Your task to perform on an android device: check android version Image 0: 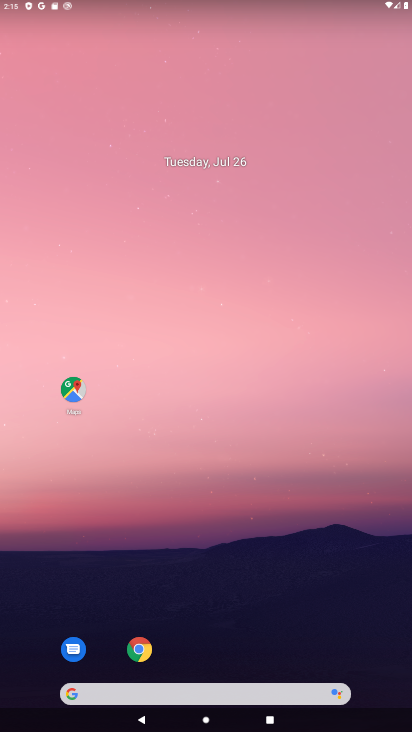
Step 0: drag from (274, 684) to (144, 88)
Your task to perform on an android device: check android version Image 1: 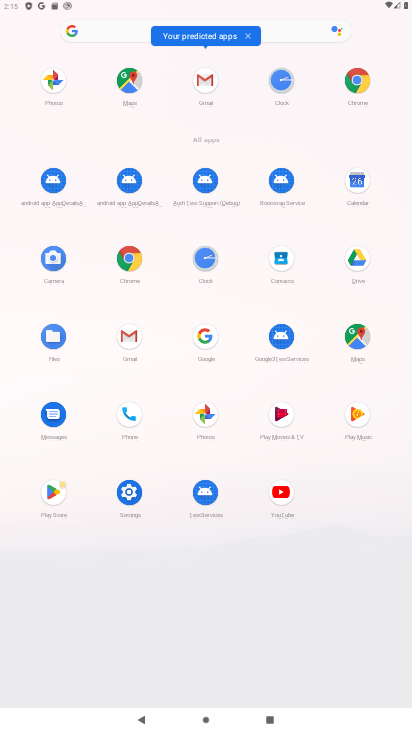
Step 1: click (130, 492)
Your task to perform on an android device: check android version Image 2: 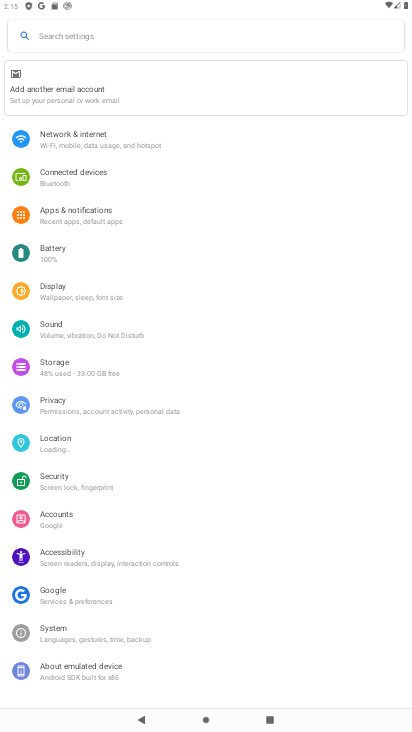
Step 2: click (112, 669)
Your task to perform on an android device: check android version Image 3: 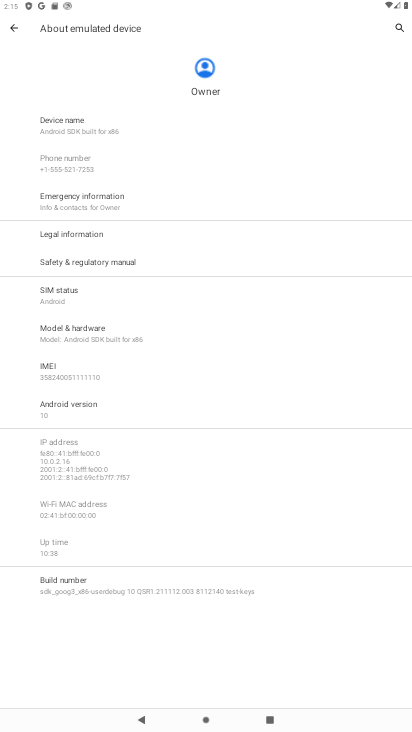
Step 3: click (95, 396)
Your task to perform on an android device: check android version Image 4: 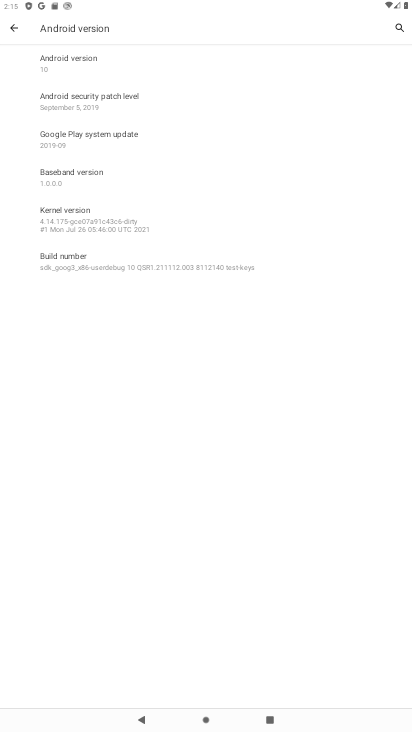
Step 4: task complete